Your task to perform on an android device: Do I have any events today? Image 0: 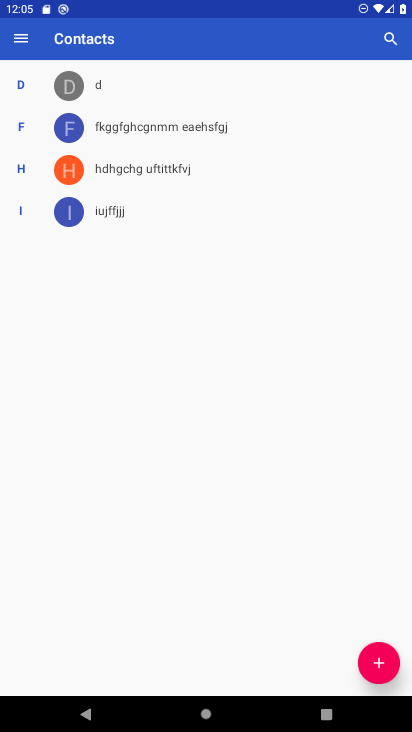
Step 0: press home button
Your task to perform on an android device: Do I have any events today? Image 1: 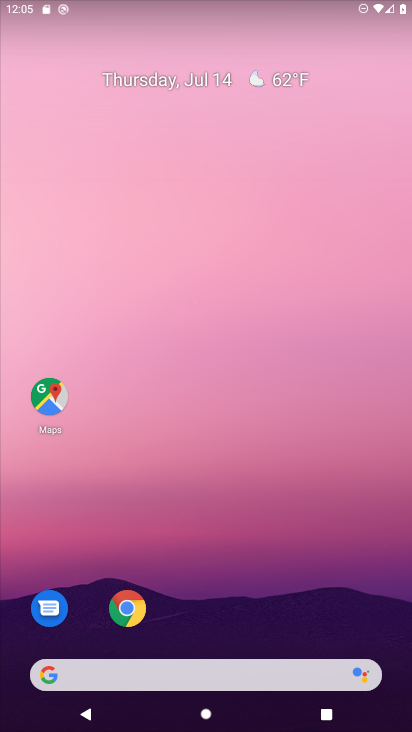
Step 1: drag from (233, 704) to (229, 79)
Your task to perform on an android device: Do I have any events today? Image 2: 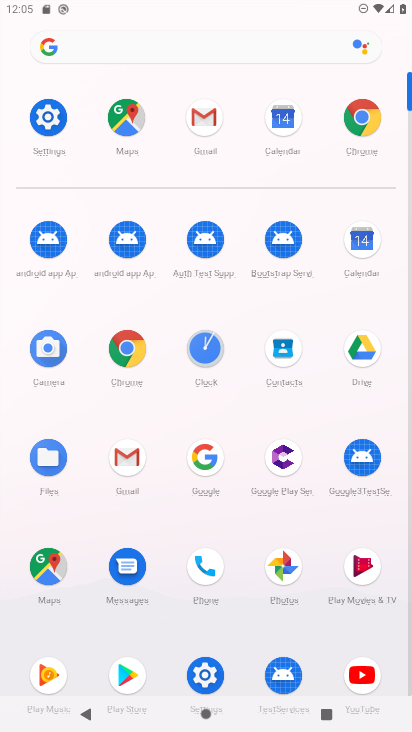
Step 2: click (366, 241)
Your task to perform on an android device: Do I have any events today? Image 3: 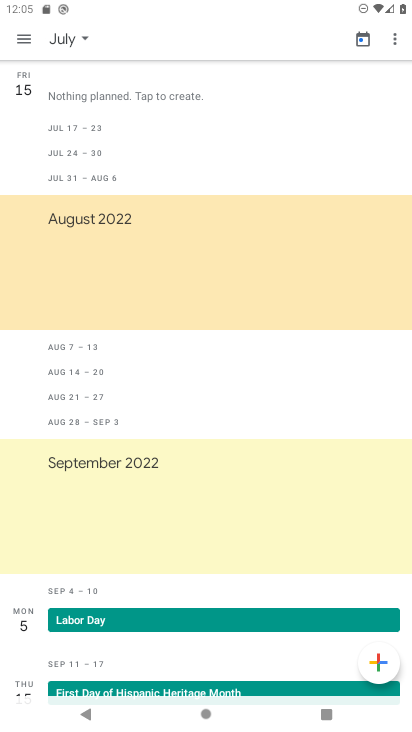
Step 3: task complete